Your task to perform on an android device: allow notifications from all sites in the chrome app Image 0: 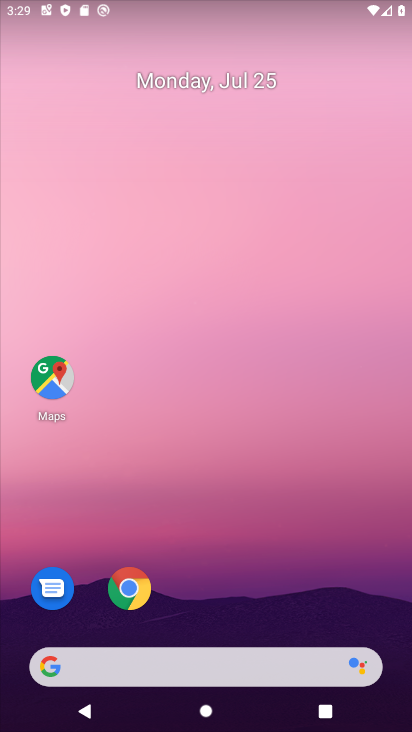
Step 0: drag from (296, 550) to (319, 73)
Your task to perform on an android device: allow notifications from all sites in the chrome app Image 1: 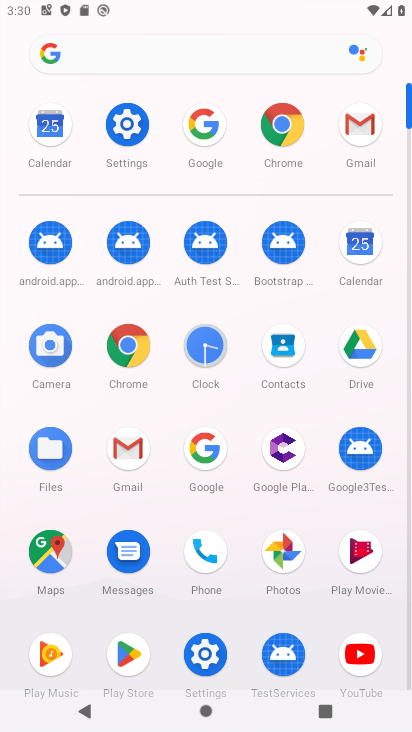
Step 1: drag from (350, 127) to (288, 157)
Your task to perform on an android device: allow notifications from all sites in the chrome app Image 2: 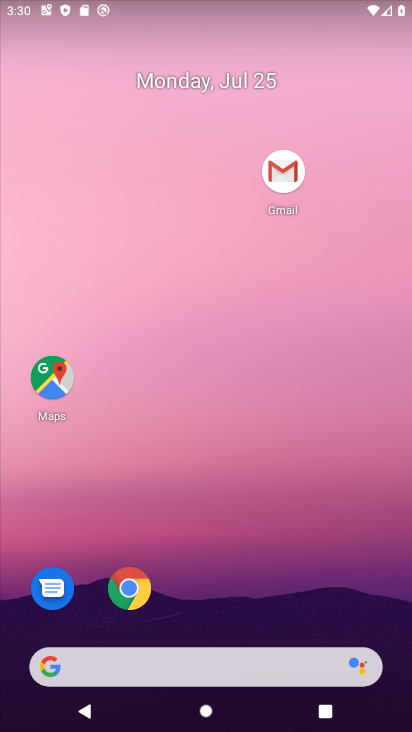
Step 2: drag from (268, 512) to (288, 16)
Your task to perform on an android device: allow notifications from all sites in the chrome app Image 3: 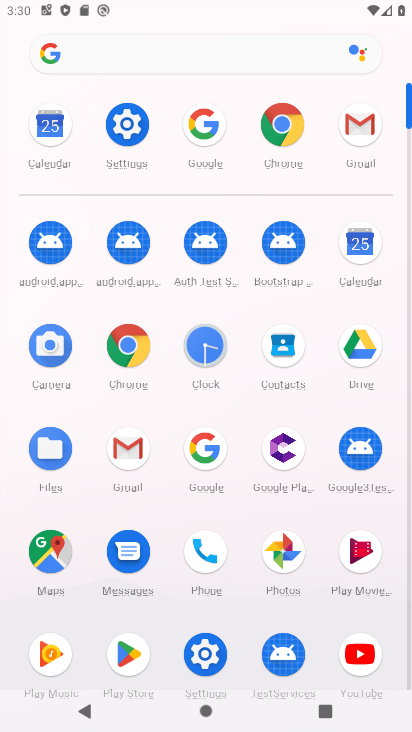
Step 3: click (287, 123)
Your task to perform on an android device: allow notifications from all sites in the chrome app Image 4: 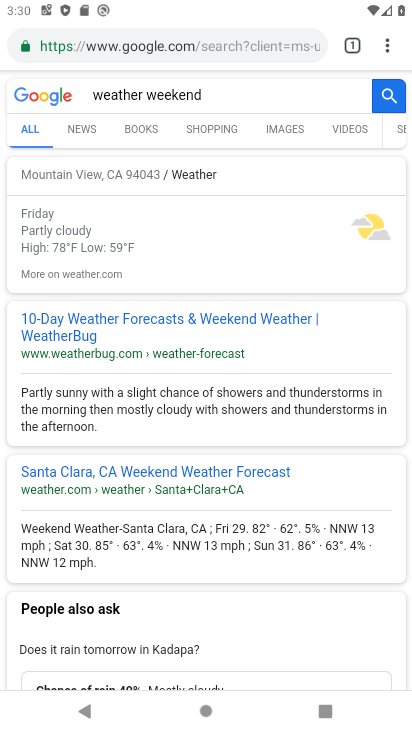
Step 4: drag from (388, 42) to (245, 503)
Your task to perform on an android device: allow notifications from all sites in the chrome app Image 5: 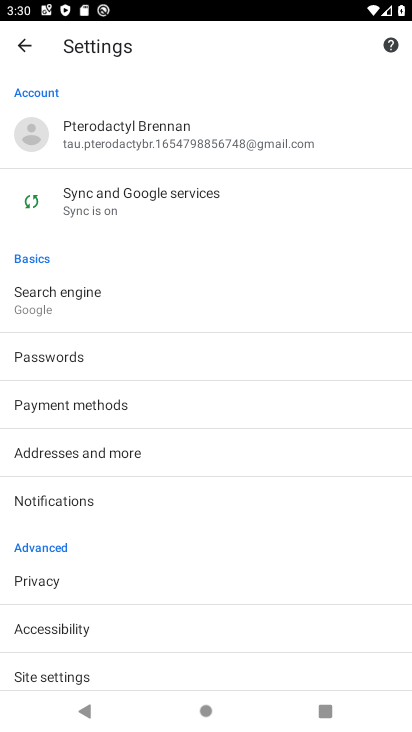
Step 5: click (61, 503)
Your task to perform on an android device: allow notifications from all sites in the chrome app Image 6: 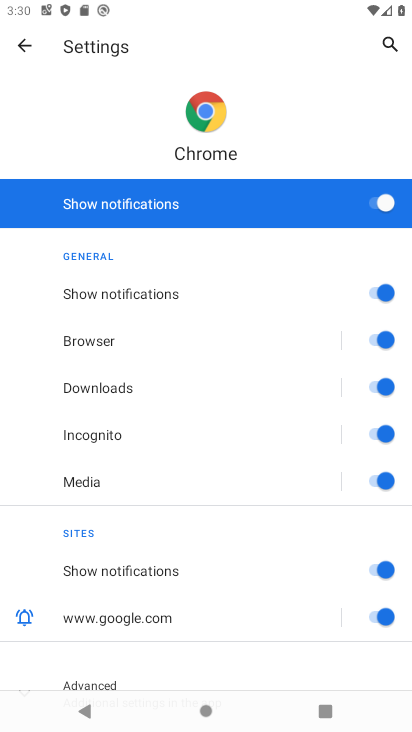
Step 6: task complete